Your task to perform on an android device: Empty the shopping cart on bestbuy.com. Add "logitech g903" to the cart on bestbuy.com Image 0: 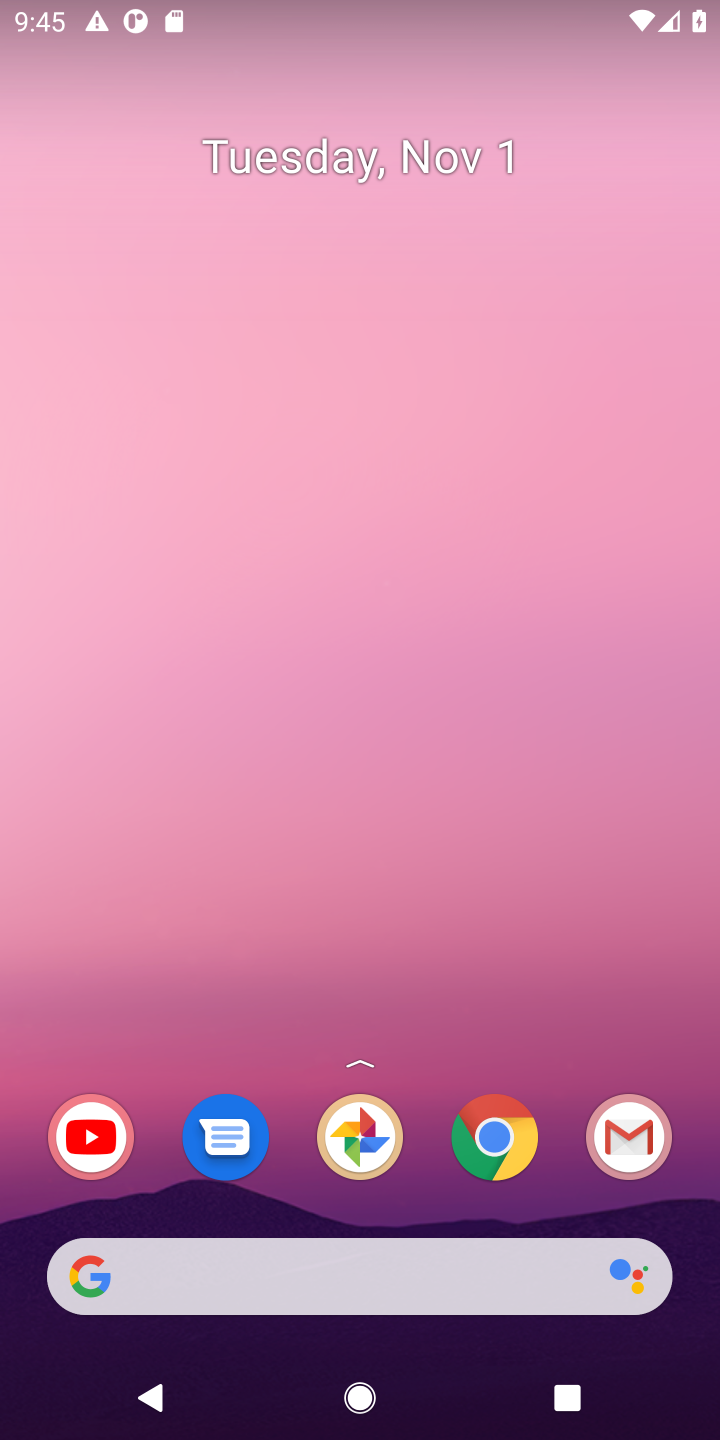
Step 0: drag from (320, 1227) to (394, 278)
Your task to perform on an android device: Empty the shopping cart on bestbuy.com. Add "logitech g903" to the cart on bestbuy.com Image 1: 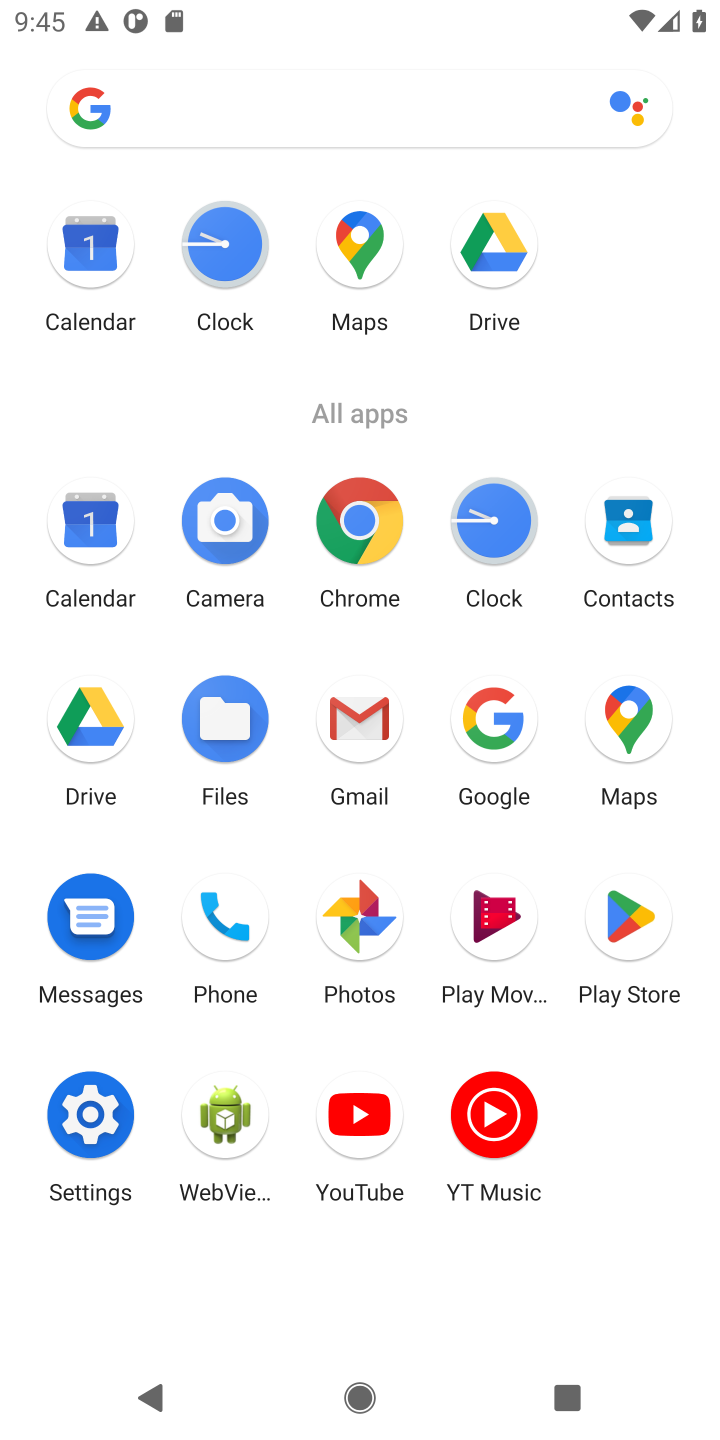
Step 1: click (503, 736)
Your task to perform on an android device: Empty the shopping cart on bestbuy.com. Add "logitech g903" to the cart on bestbuy.com Image 2: 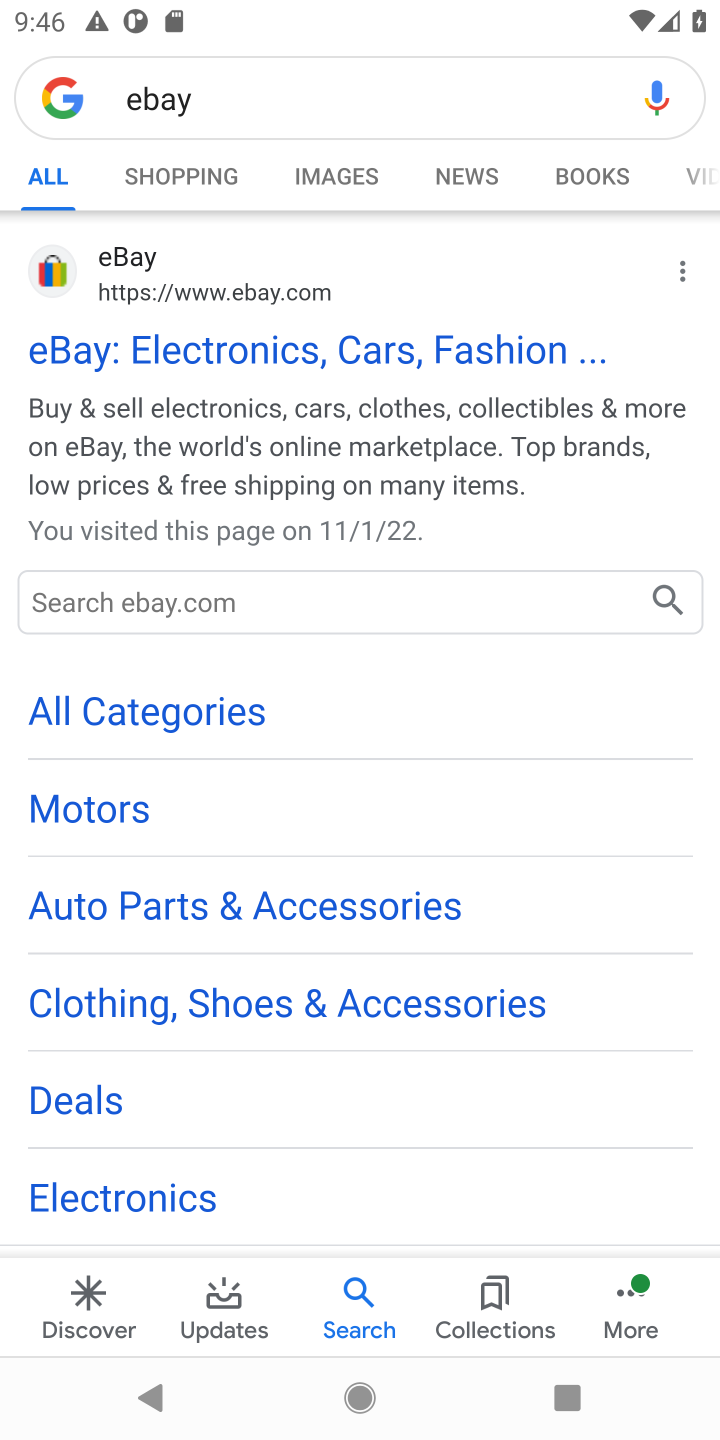
Step 2: click (492, 101)
Your task to perform on an android device: Empty the shopping cart on bestbuy.com. Add "logitech g903" to the cart on bestbuy.com Image 3: 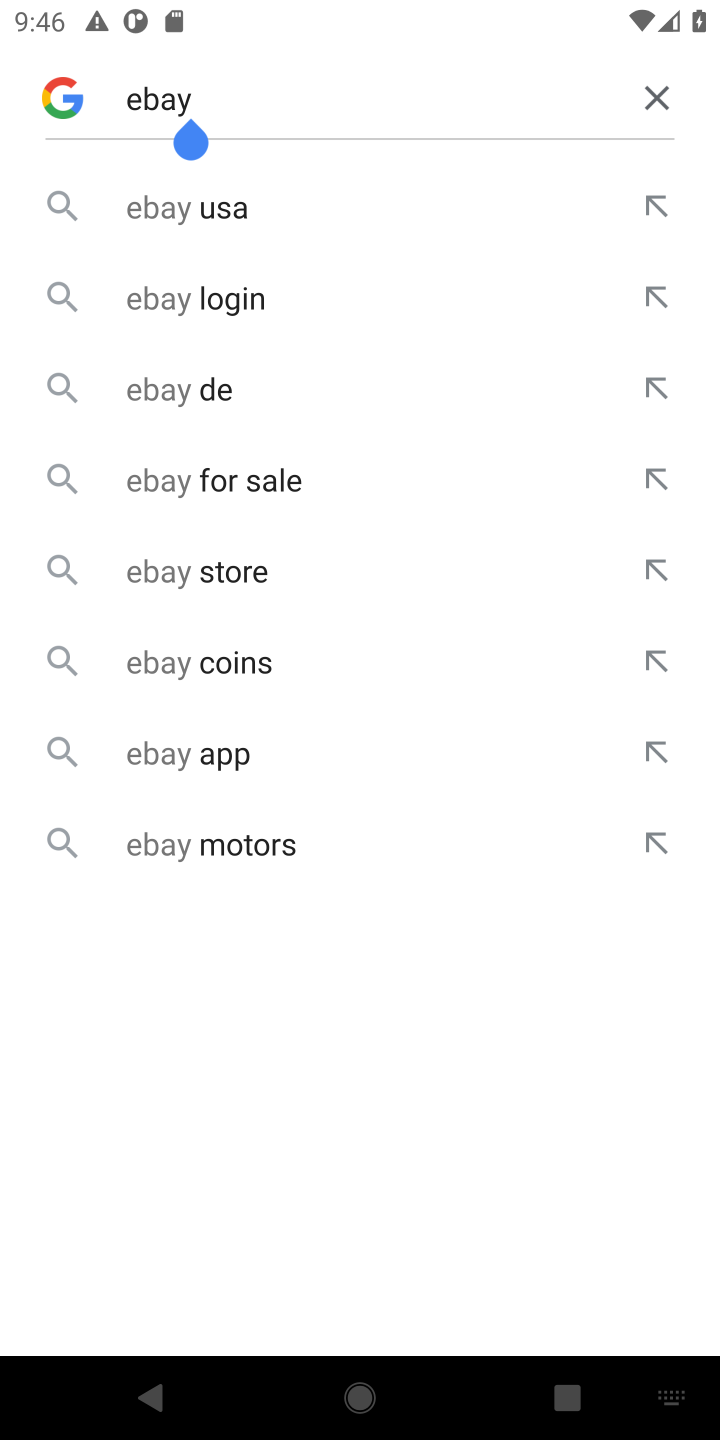
Step 3: click (661, 101)
Your task to perform on an android device: Empty the shopping cart on bestbuy.com. Add "logitech g903" to the cart on bestbuy.com Image 4: 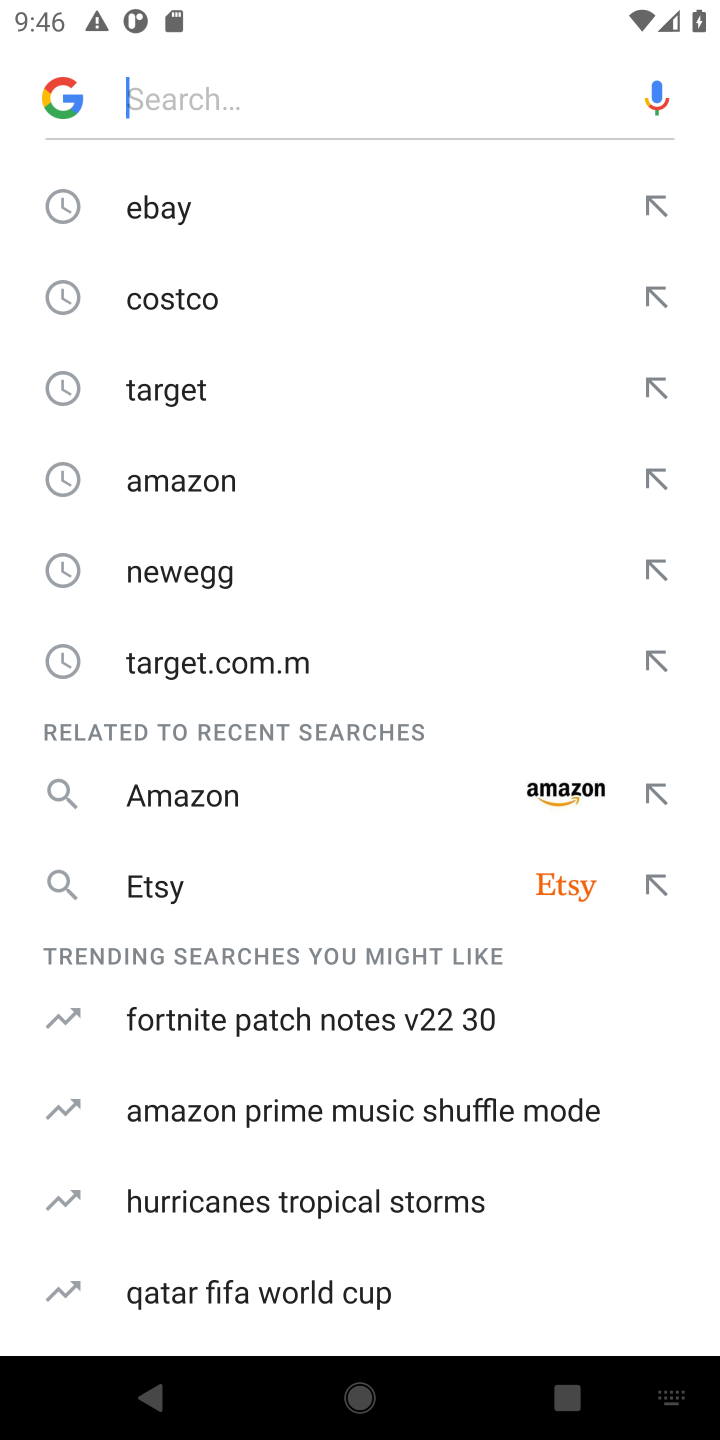
Step 4: type "bestbuy.com"
Your task to perform on an android device: Empty the shopping cart on bestbuy.com. Add "logitech g903" to the cart on bestbuy.com Image 5: 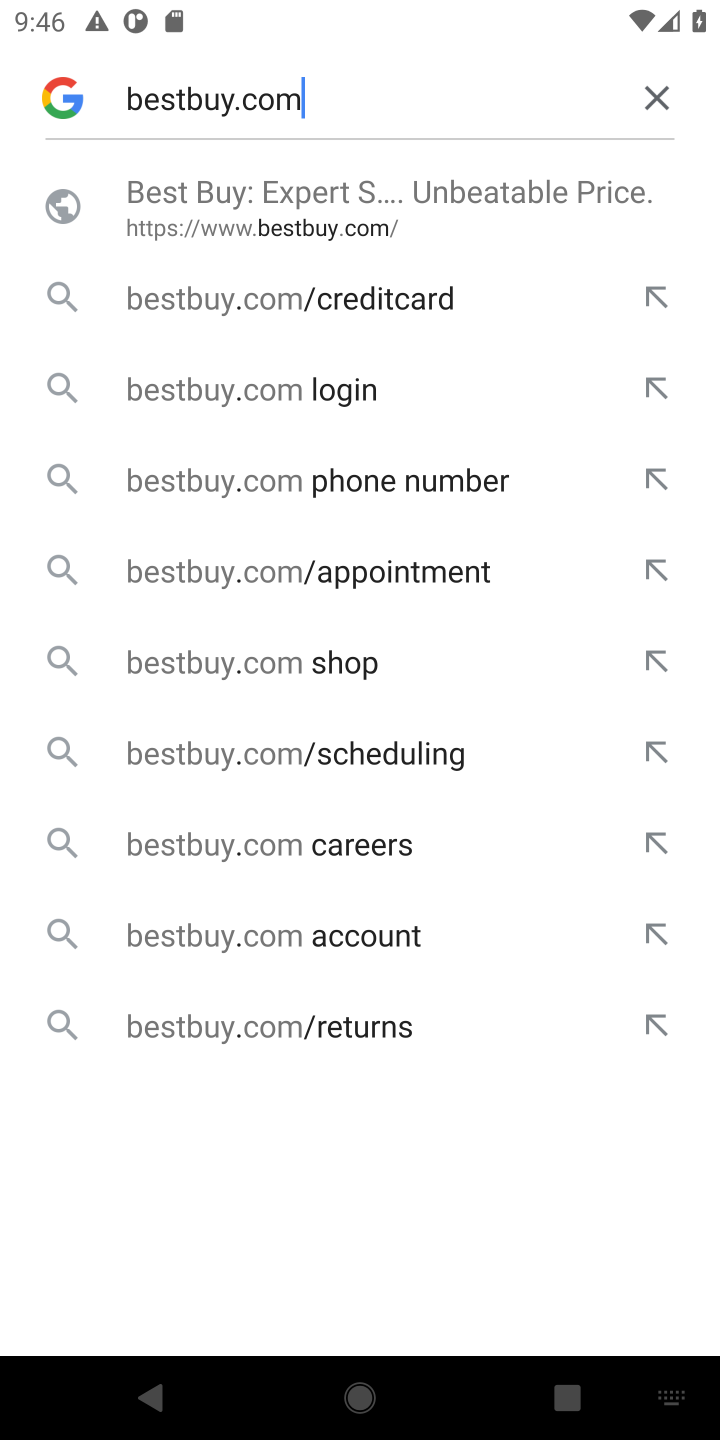
Step 5: click (243, 209)
Your task to perform on an android device: Empty the shopping cart on bestbuy.com. Add "logitech g903" to the cart on bestbuy.com Image 6: 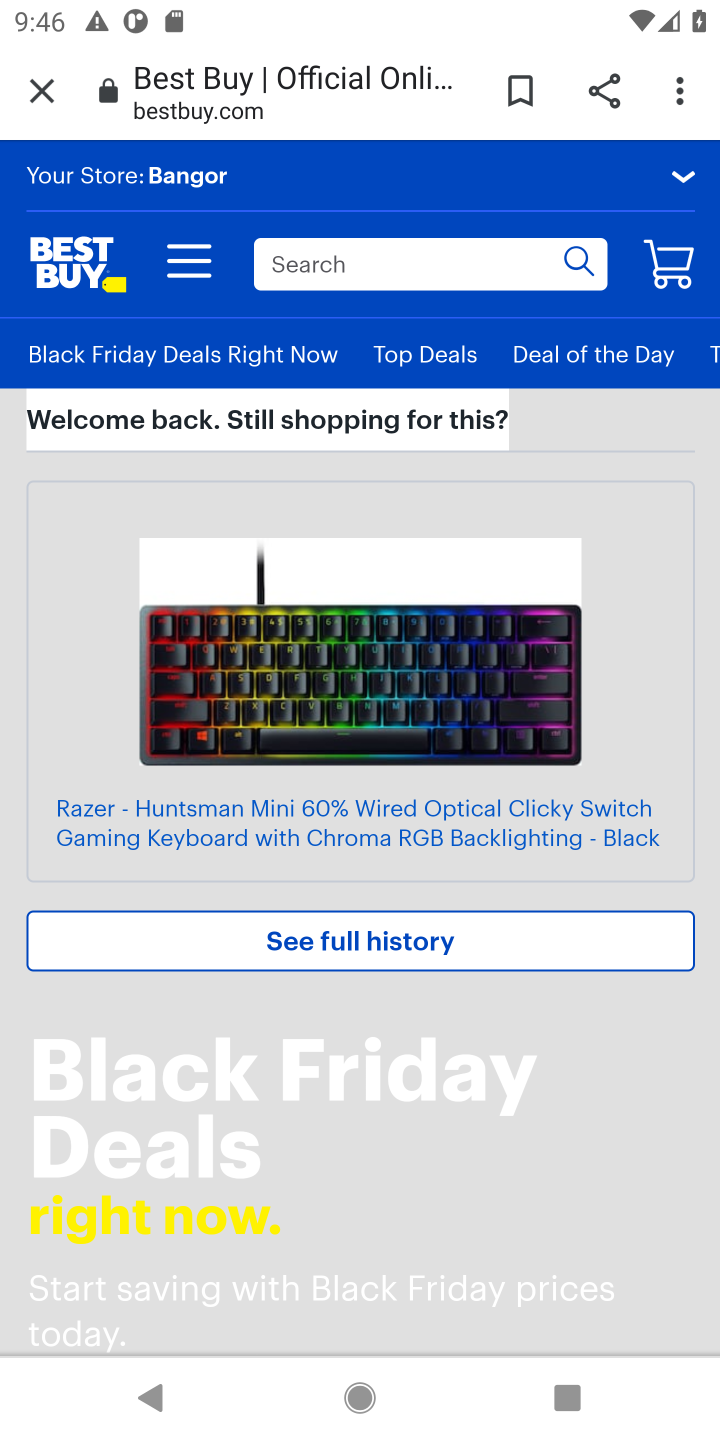
Step 6: click (351, 274)
Your task to perform on an android device: Empty the shopping cart on bestbuy.com. Add "logitech g903" to the cart on bestbuy.com Image 7: 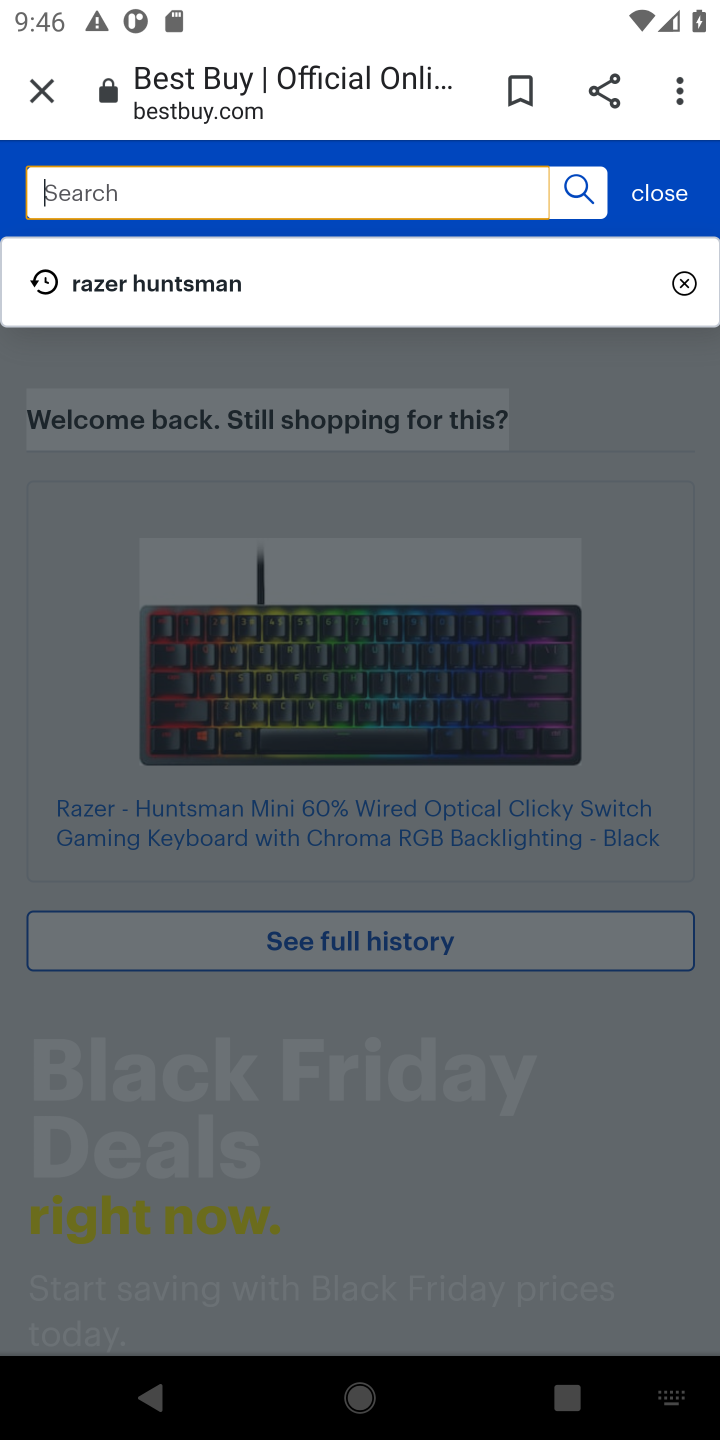
Step 7: type "logitech g903"
Your task to perform on an android device: Empty the shopping cart on bestbuy.com. Add "logitech g903" to the cart on bestbuy.com Image 8: 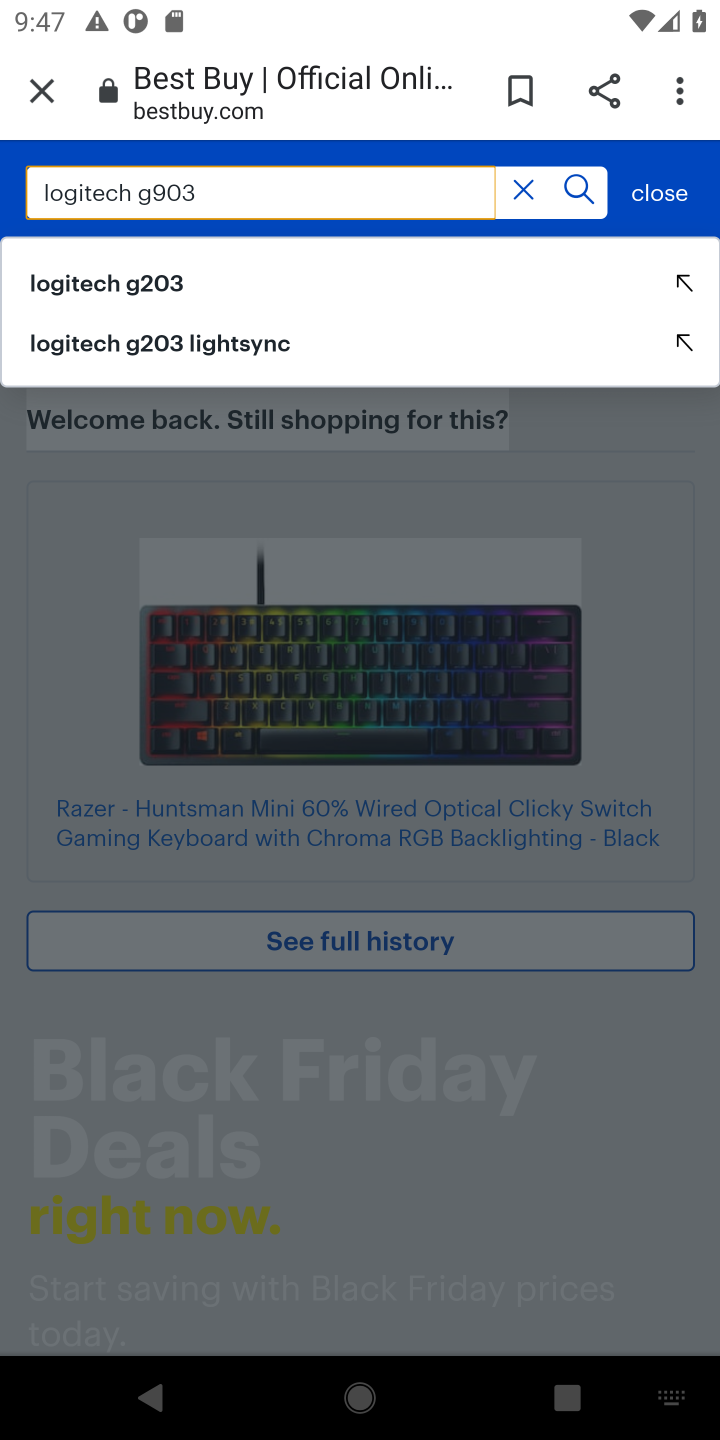
Step 8: click (153, 284)
Your task to perform on an android device: Empty the shopping cart on bestbuy.com. Add "logitech g903" to the cart on bestbuy.com Image 9: 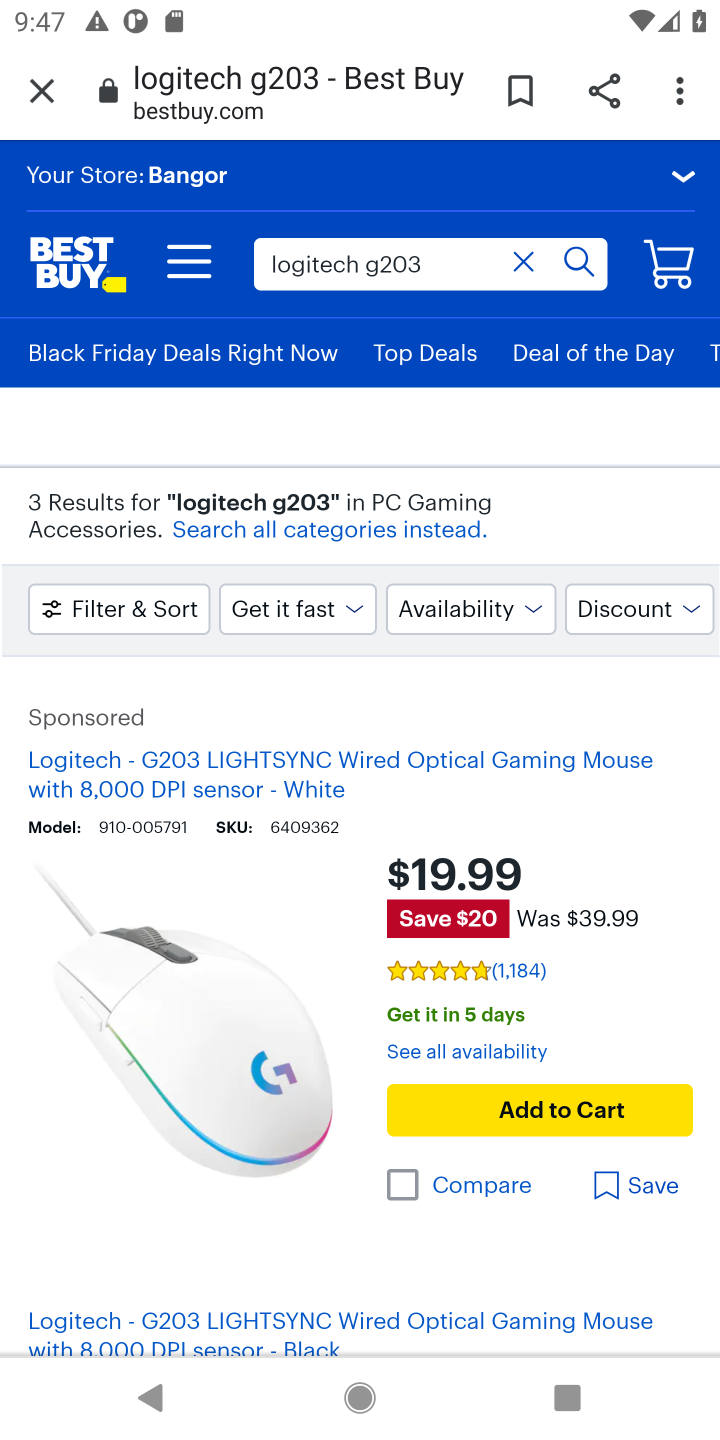
Step 9: click (213, 765)
Your task to perform on an android device: Empty the shopping cart on bestbuy.com. Add "logitech g903" to the cart on bestbuy.com Image 10: 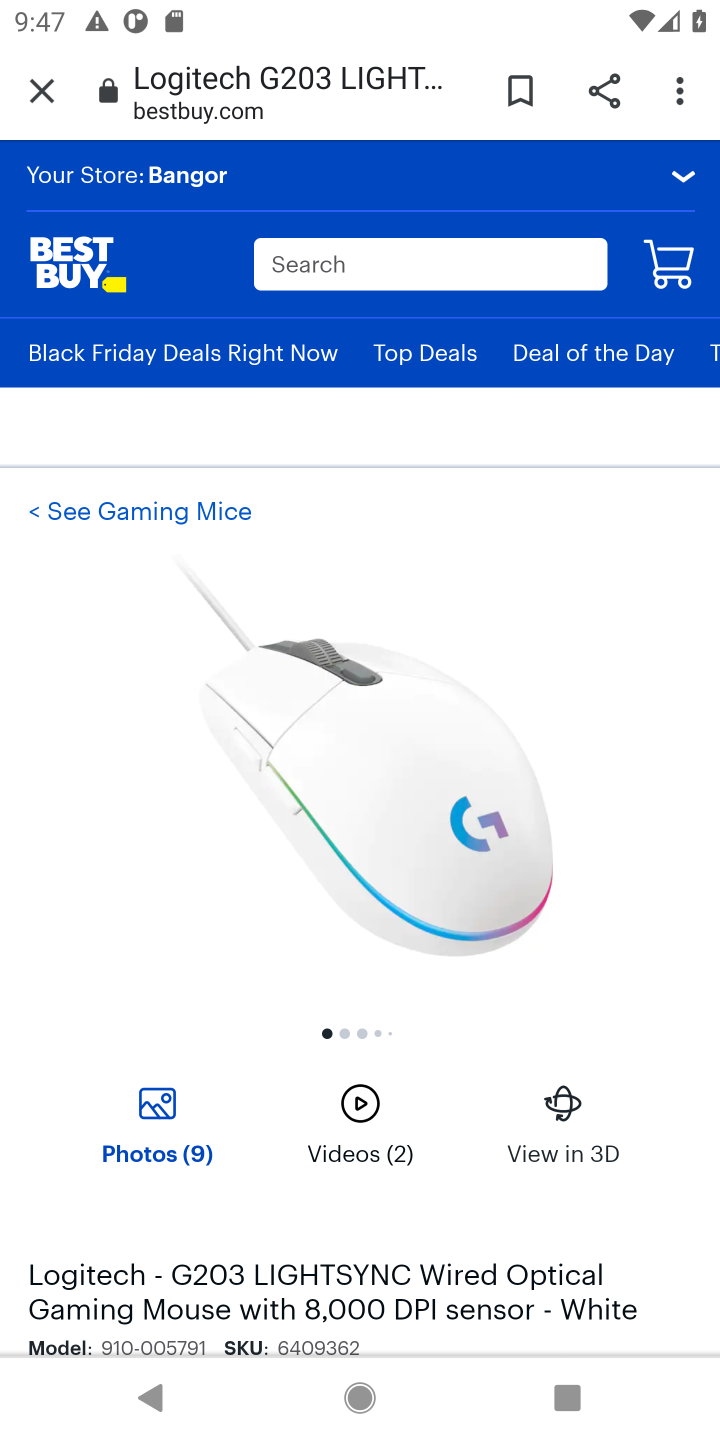
Step 10: click (237, 895)
Your task to perform on an android device: Empty the shopping cart on bestbuy.com. Add "logitech g903" to the cart on bestbuy.com Image 11: 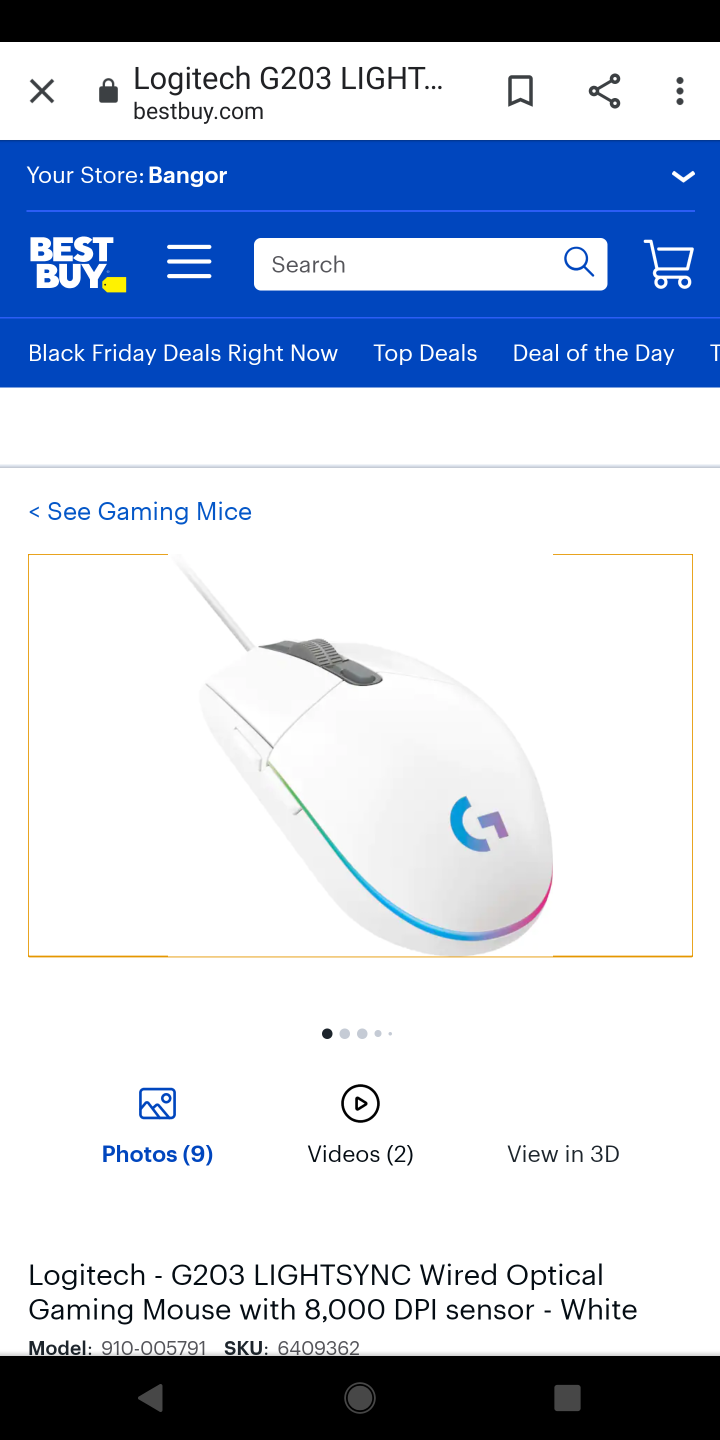
Step 11: click (396, 635)
Your task to perform on an android device: Empty the shopping cart on bestbuy.com. Add "logitech g903" to the cart on bestbuy.com Image 12: 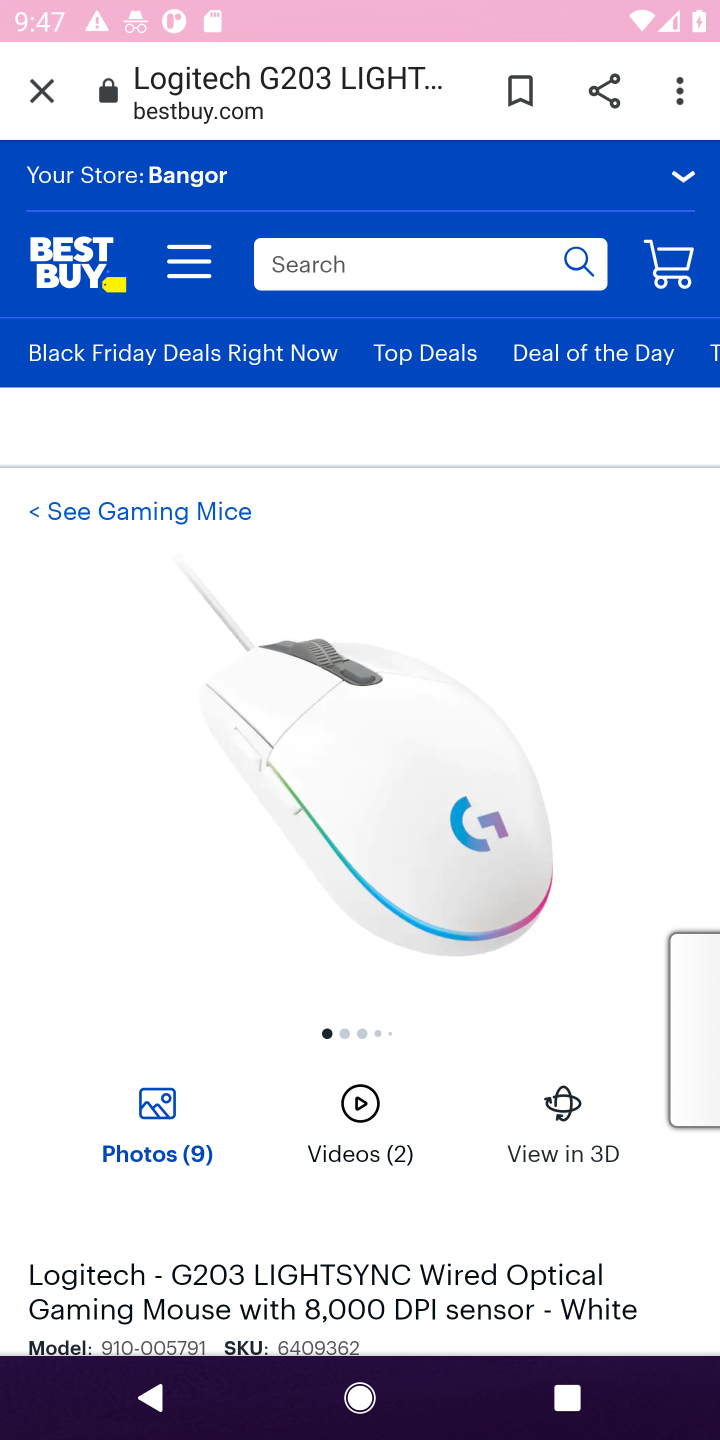
Step 12: drag from (556, 1055) to (524, 733)
Your task to perform on an android device: Empty the shopping cart on bestbuy.com. Add "logitech g903" to the cart on bestbuy.com Image 13: 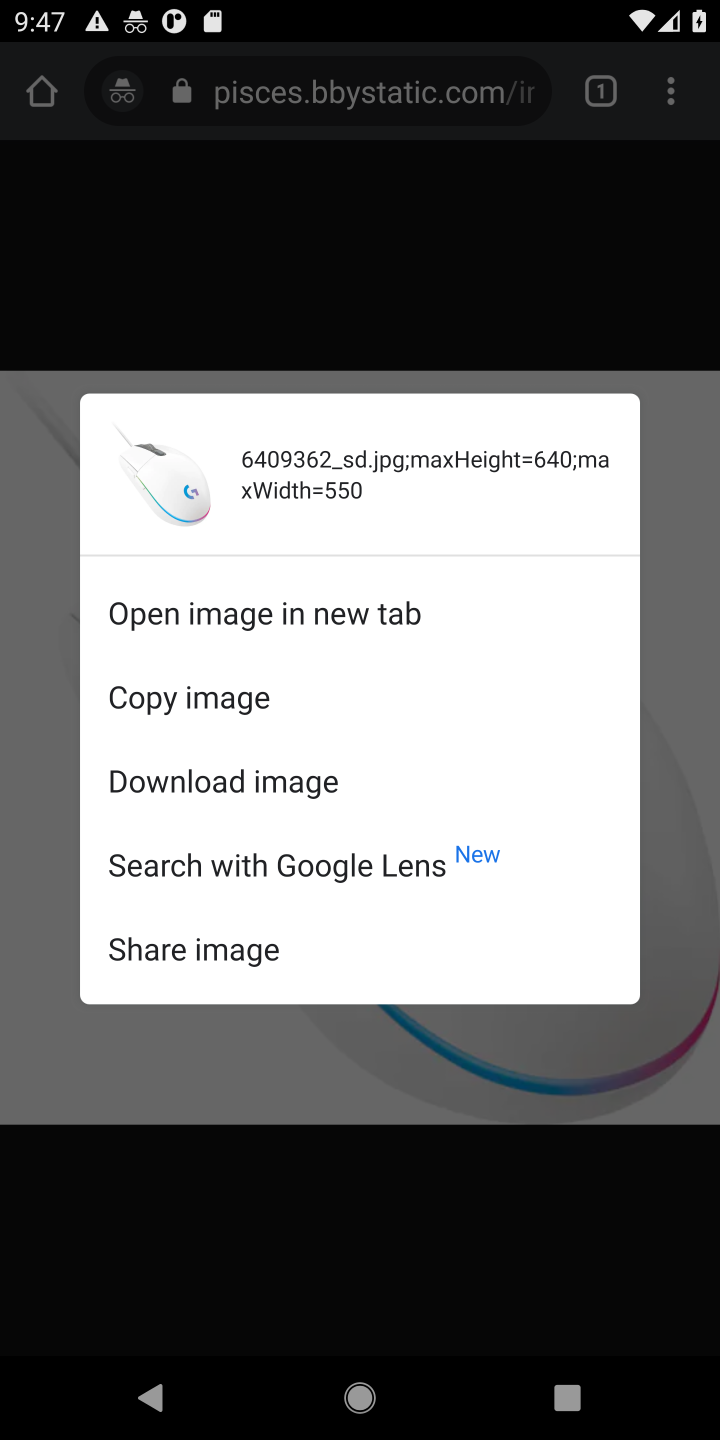
Step 13: press back button
Your task to perform on an android device: Empty the shopping cart on bestbuy.com. Add "logitech g903" to the cart on bestbuy.com Image 14: 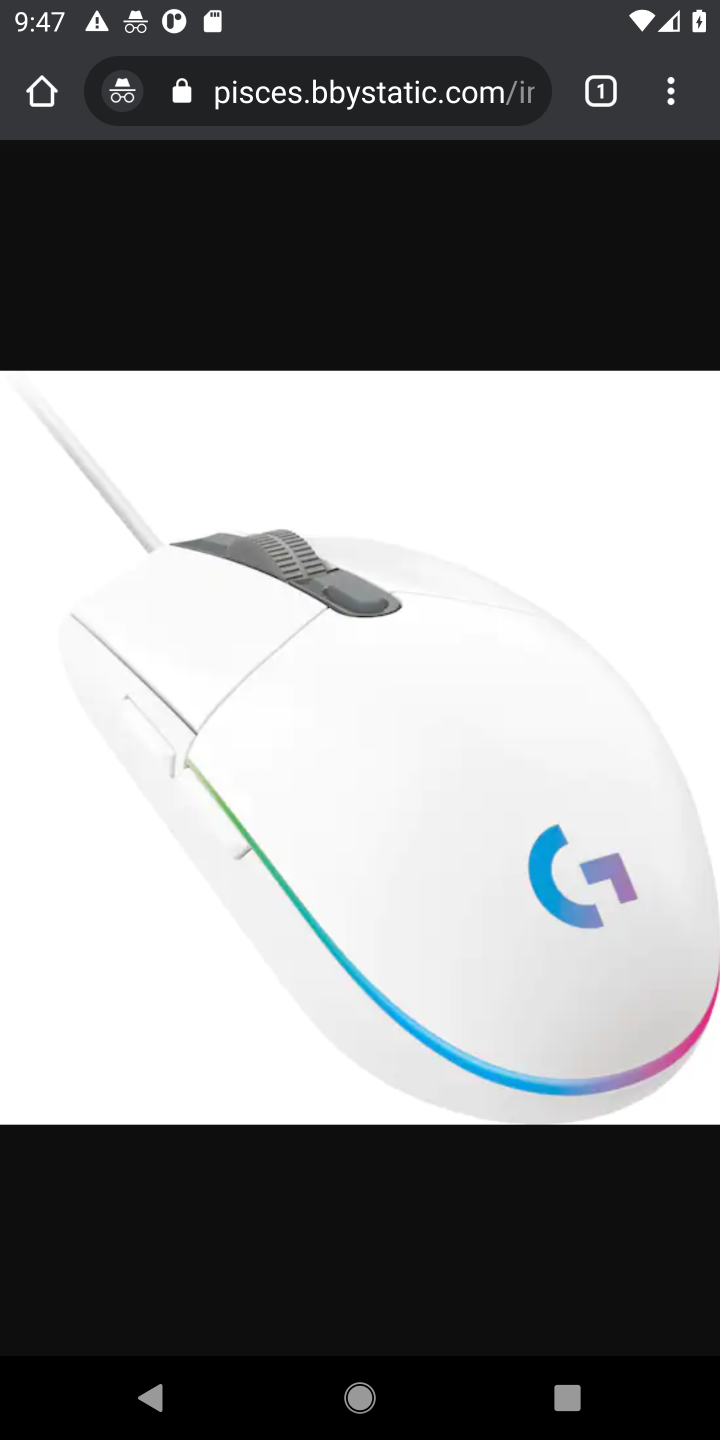
Step 14: press back button
Your task to perform on an android device: Empty the shopping cart on bestbuy.com. Add "logitech g903" to the cart on bestbuy.com Image 15: 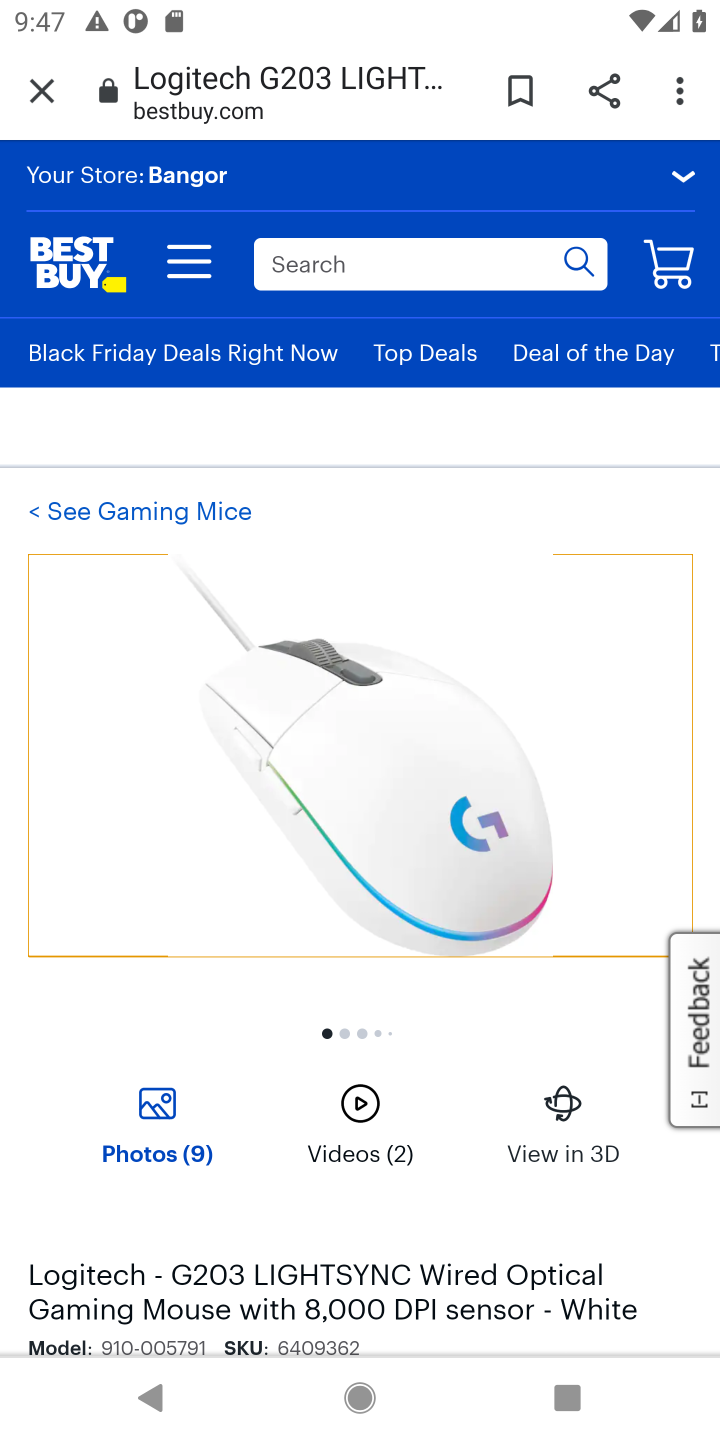
Step 15: drag from (254, 1218) to (275, 677)
Your task to perform on an android device: Empty the shopping cart on bestbuy.com. Add "logitech g903" to the cart on bestbuy.com Image 16: 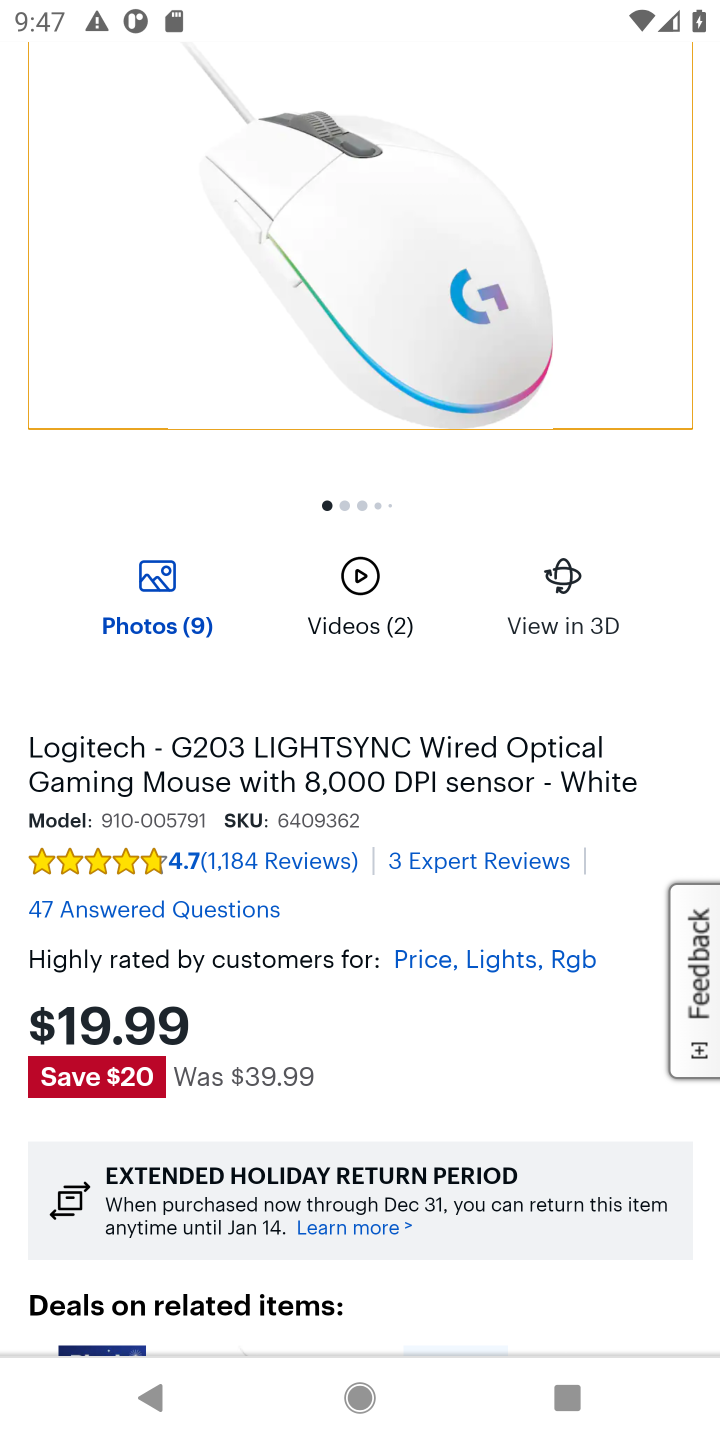
Step 16: click (313, 694)
Your task to perform on an android device: Empty the shopping cart on bestbuy.com. Add "logitech g903" to the cart on bestbuy.com Image 17: 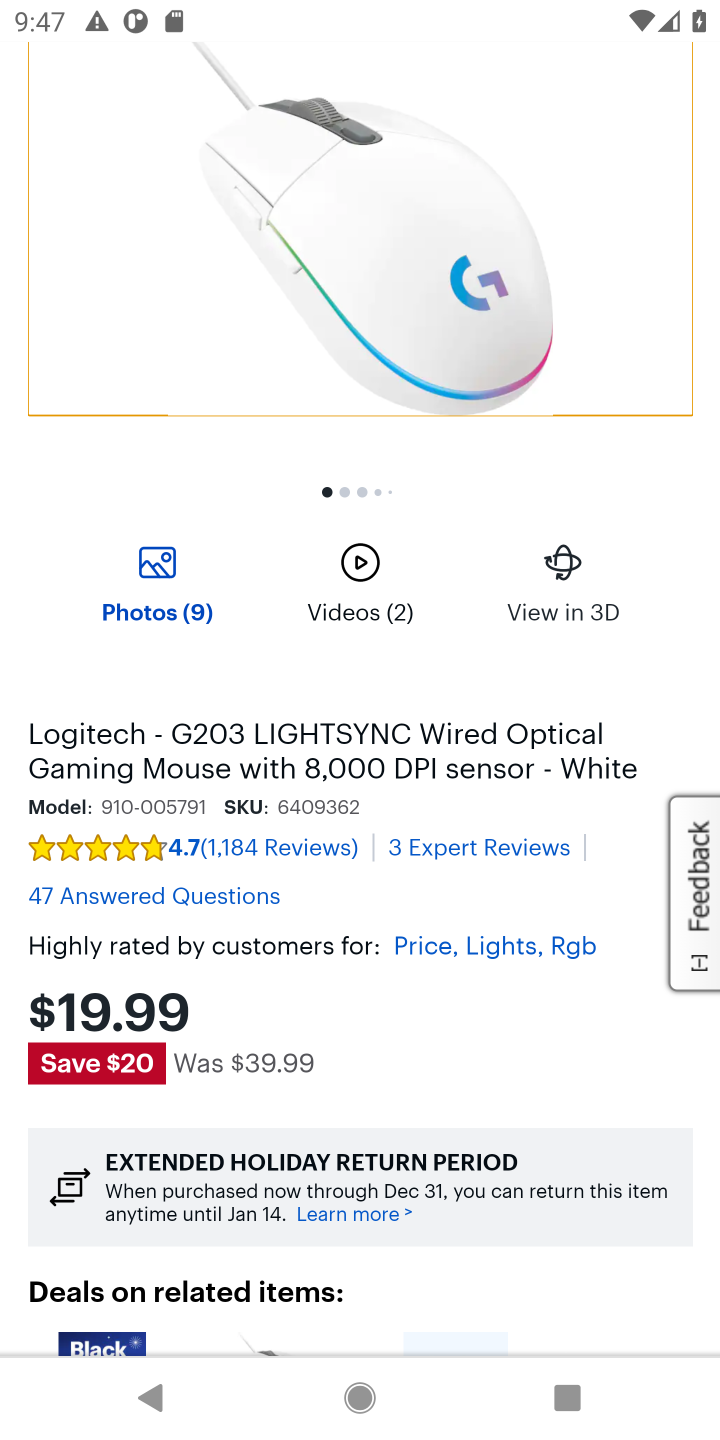
Step 17: drag from (374, 1055) to (374, 786)
Your task to perform on an android device: Empty the shopping cart on bestbuy.com. Add "logitech g903" to the cart on bestbuy.com Image 18: 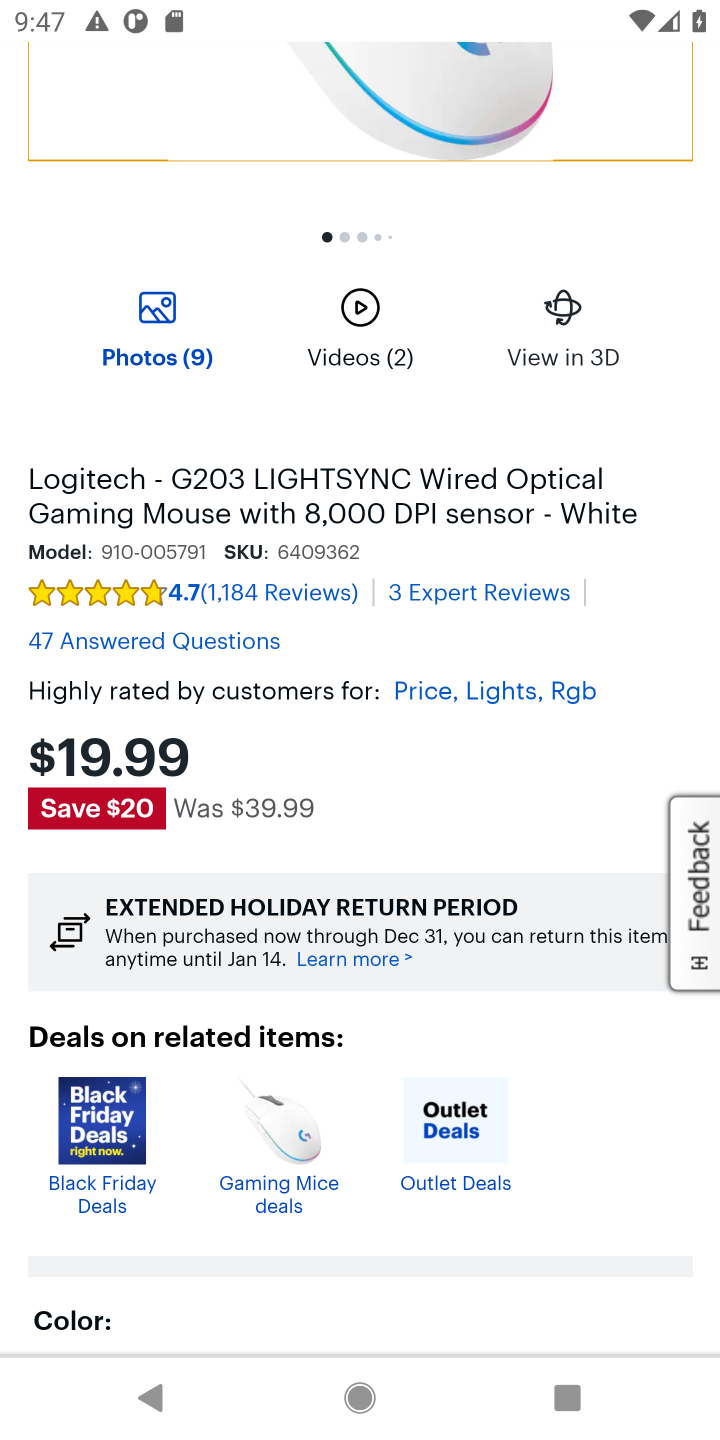
Step 18: drag from (298, 1168) to (350, 664)
Your task to perform on an android device: Empty the shopping cart on bestbuy.com. Add "logitech g903" to the cart on bestbuy.com Image 19: 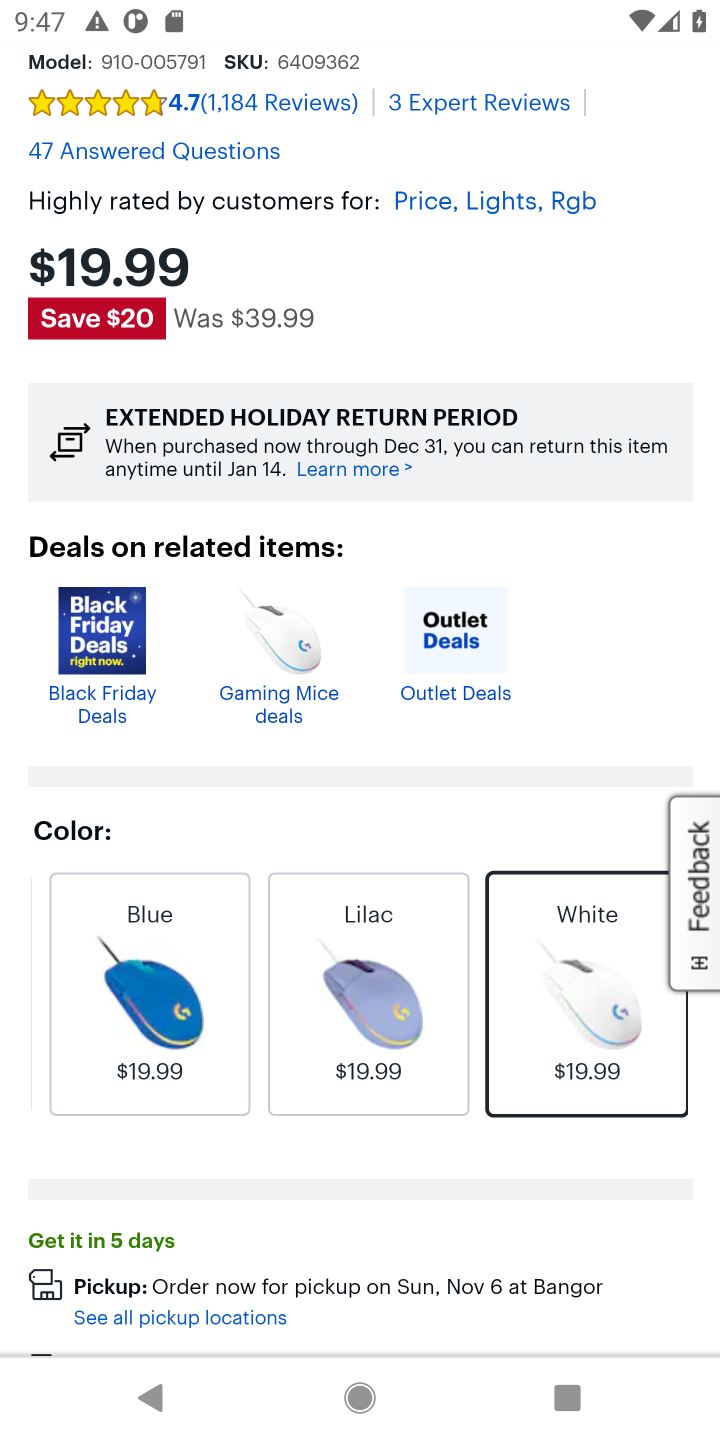
Step 19: drag from (265, 1213) to (370, 625)
Your task to perform on an android device: Empty the shopping cart on bestbuy.com. Add "logitech g903" to the cart on bestbuy.com Image 20: 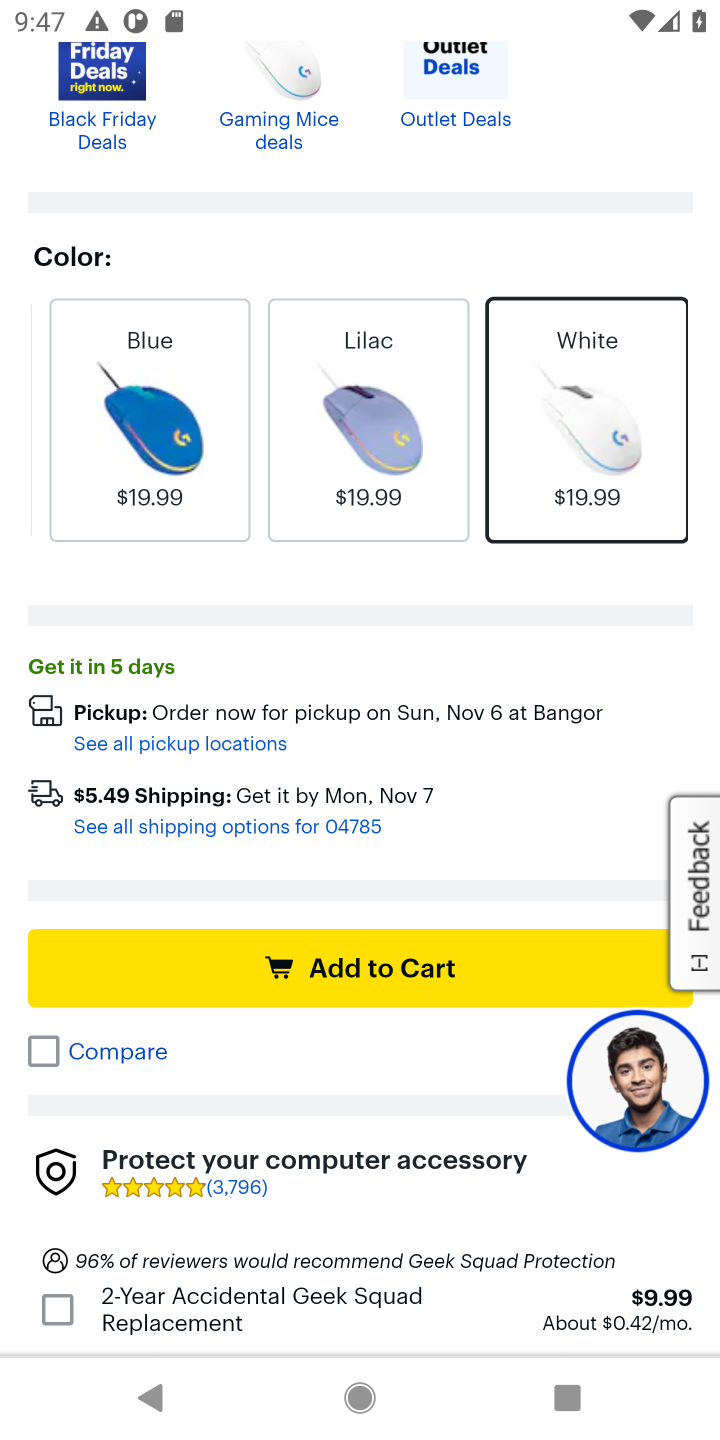
Step 20: click (340, 969)
Your task to perform on an android device: Empty the shopping cart on bestbuy.com. Add "logitech g903" to the cart on bestbuy.com Image 21: 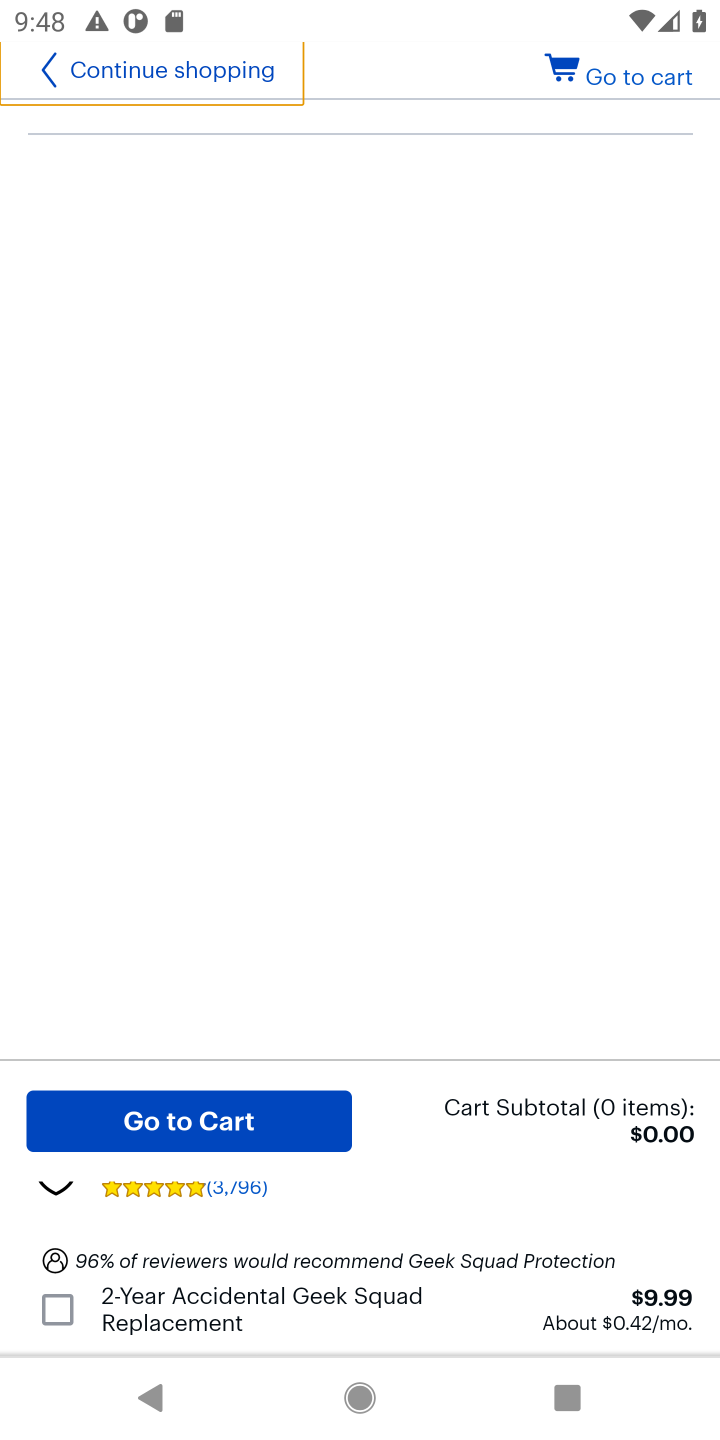
Step 21: task complete